Your task to perform on an android device: snooze an email in the gmail app Image 0: 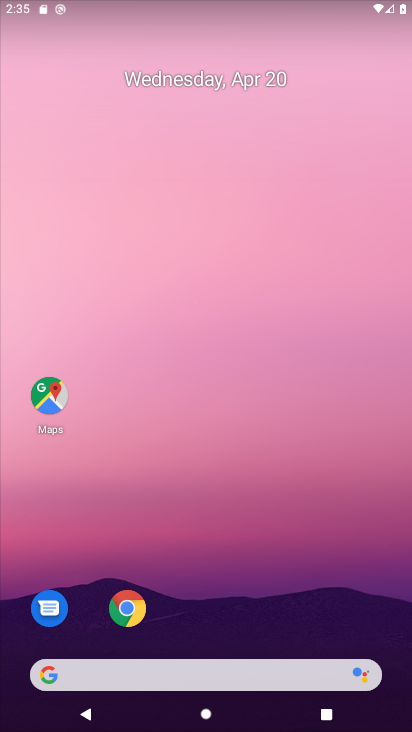
Step 0: click (273, 98)
Your task to perform on an android device: snooze an email in the gmail app Image 1: 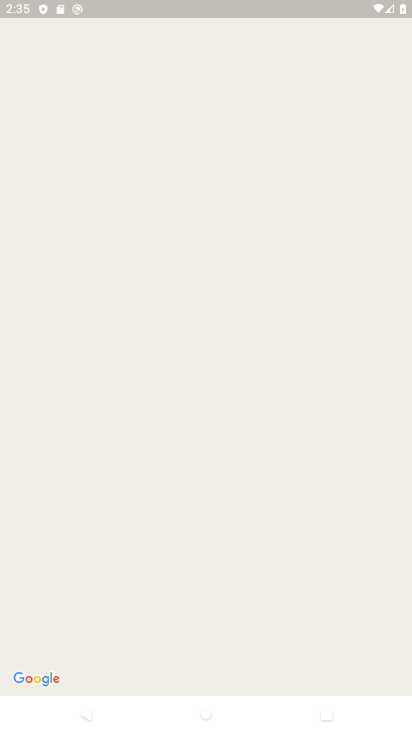
Step 1: press back button
Your task to perform on an android device: snooze an email in the gmail app Image 2: 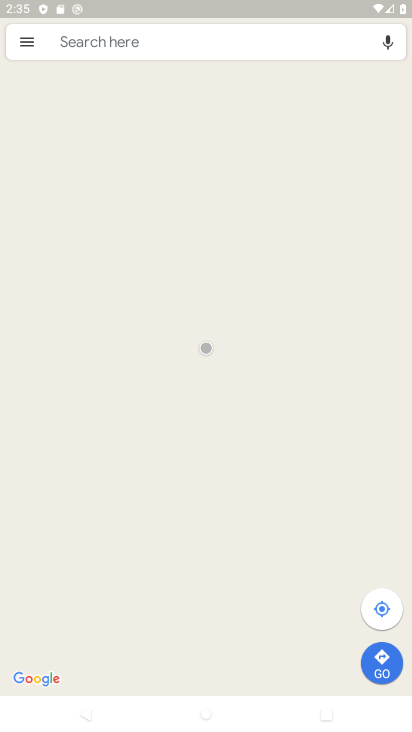
Step 2: press back button
Your task to perform on an android device: snooze an email in the gmail app Image 3: 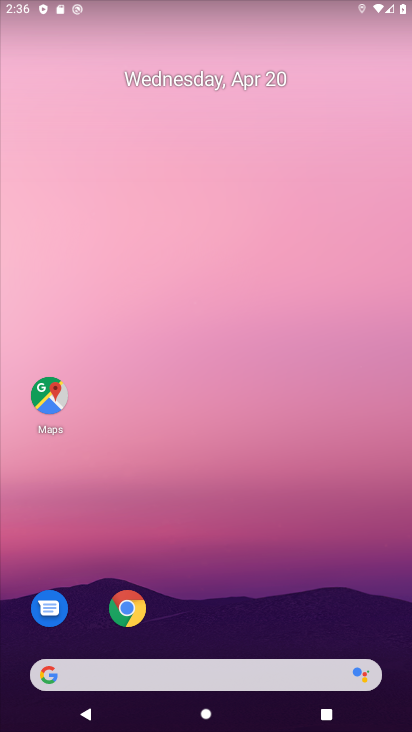
Step 3: drag from (232, 513) to (297, 20)
Your task to perform on an android device: snooze an email in the gmail app Image 4: 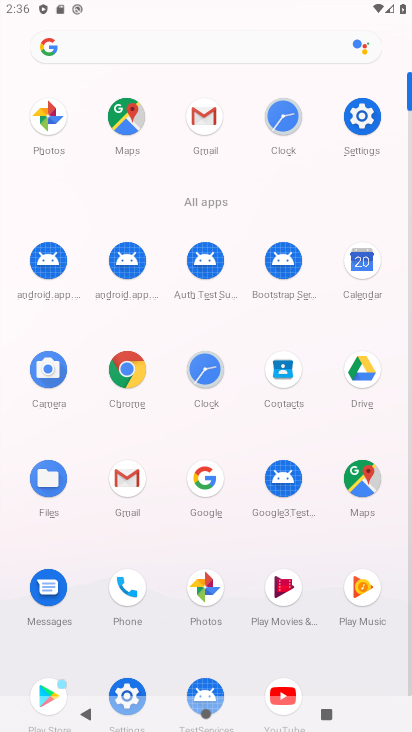
Step 4: click (201, 116)
Your task to perform on an android device: snooze an email in the gmail app Image 5: 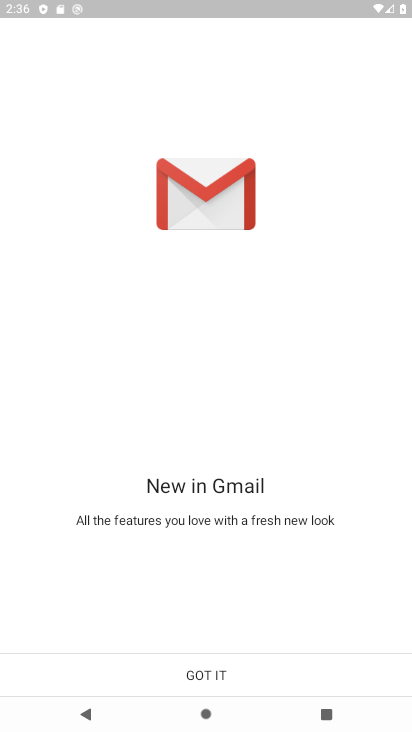
Step 5: click (199, 675)
Your task to perform on an android device: snooze an email in the gmail app Image 6: 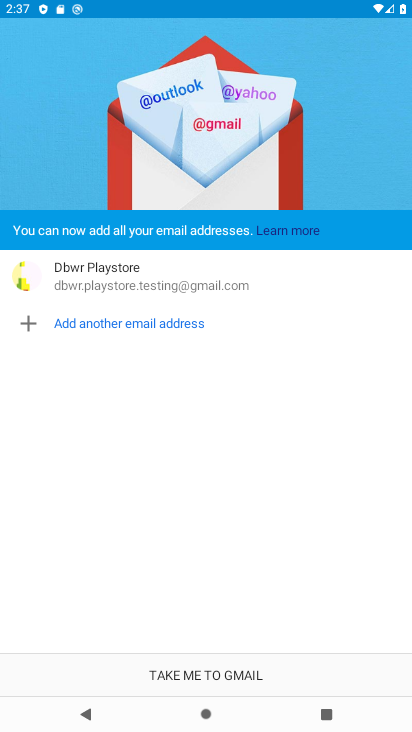
Step 6: click (186, 675)
Your task to perform on an android device: snooze an email in the gmail app Image 7: 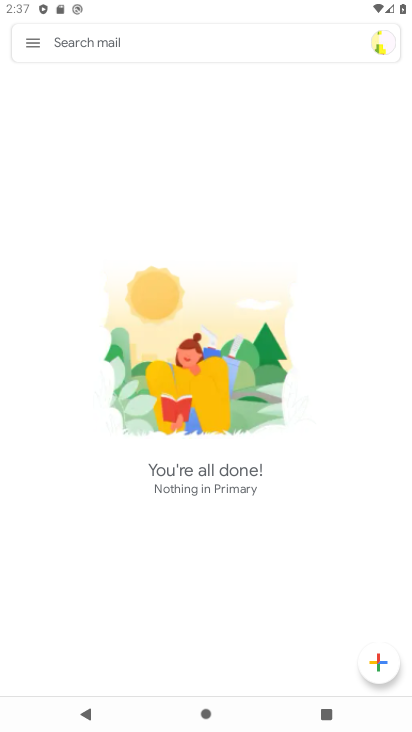
Step 7: click (33, 42)
Your task to perform on an android device: snooze an email in the gmail app Image 8: 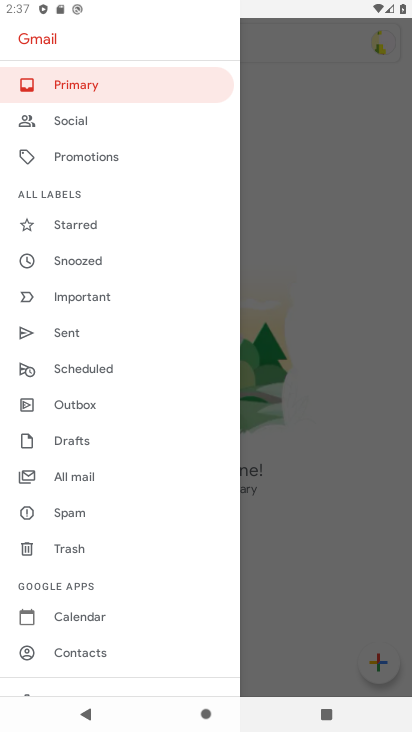
Step 8: click (90, 265)
Your task to perform on an android device: snooze an email in the gmail app Image 9: 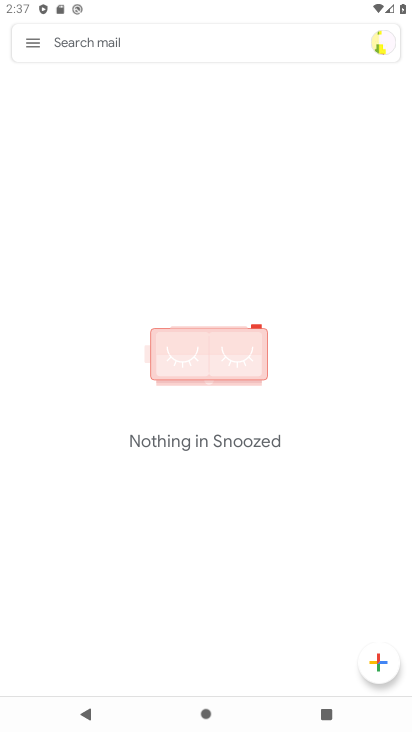
Step 9: click (29, 45)
Your task to perform on an android device: snooze an email in the gmail app Image 10: 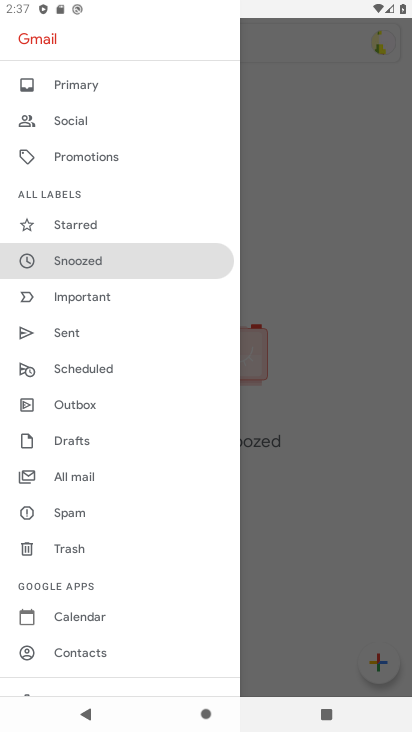
Step 10: click (64, 474)
Your task to perform on an android device: snooze an email in the gmail app Image 11: 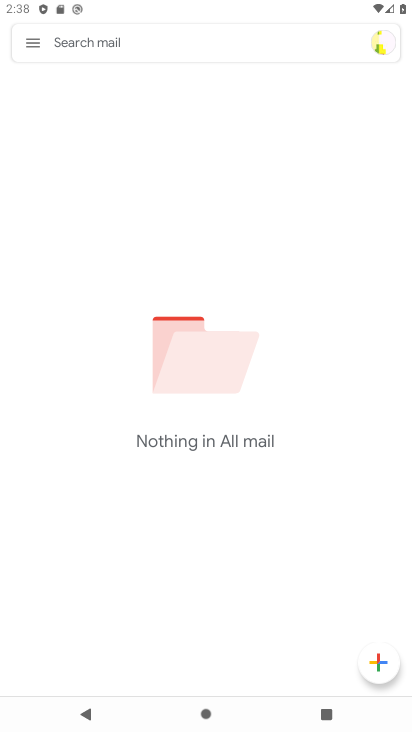
Step 11: task complete